Your task to perform on an android device: create a new album in the google photos Image 0: 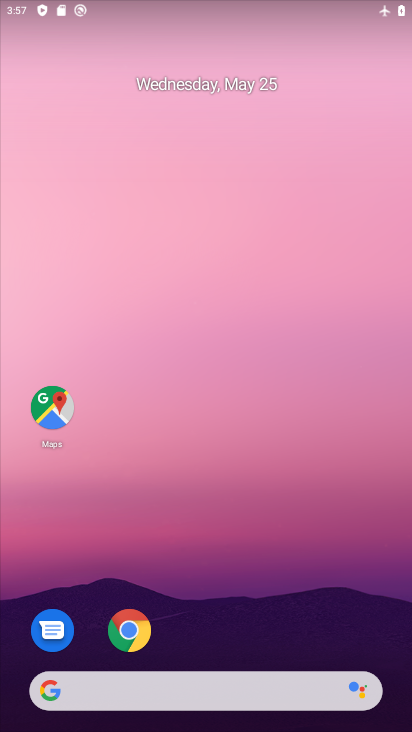
Step 0: drag from (251, 585) to (289, 119)
Your task to perform on an android device: create a new album in the google photos Image 1: 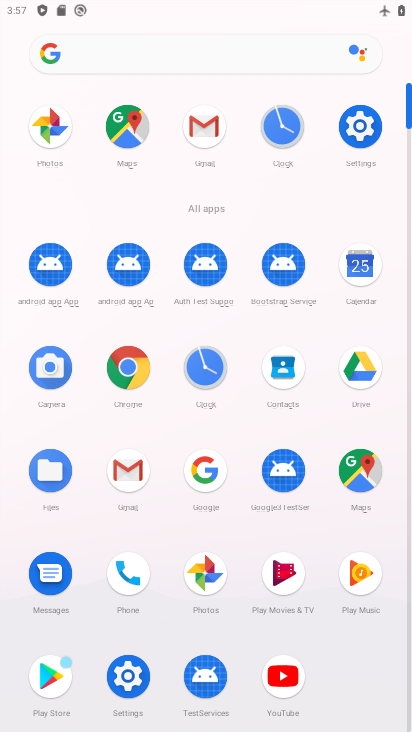
Step 1: click (200, 573)
Your task to perform on an android device: create a new album in the google photos Image 2: 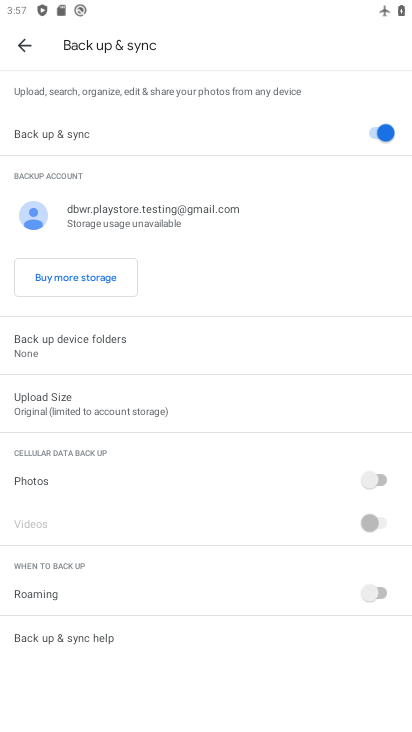
Step 2: click (23, 51)
Your task to perform on an android device: create a new album in the google photos Image 3: 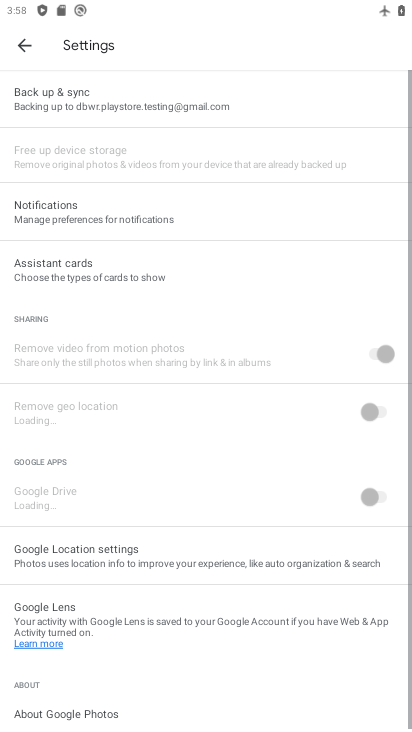
Step 3: click (25, 48)
Your task to perform on an android device: create a new album in the google photos Image 4: 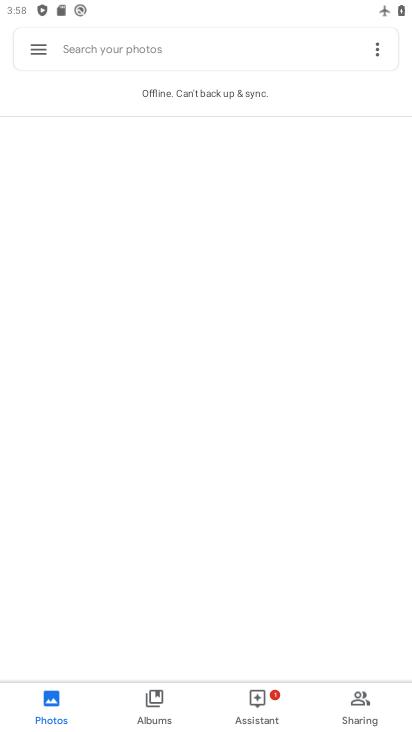
Step 4: click (377, 45)
Your task to perform on an android device: create a new album in the google photos Image 5: 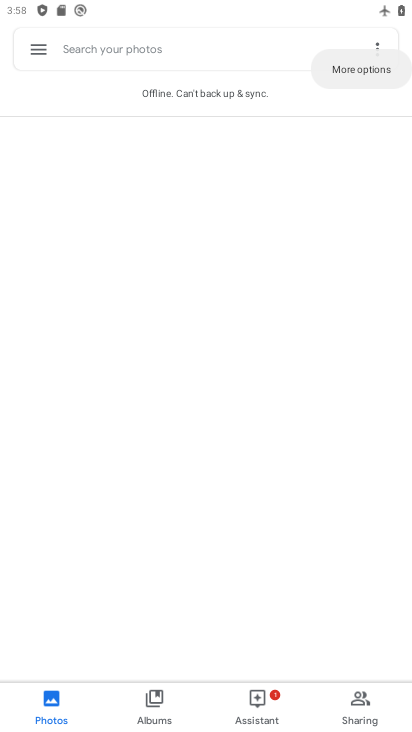
Step 5: click (377, 45)
Your task to perform on an android device: create a new album in the google photos Image 6: 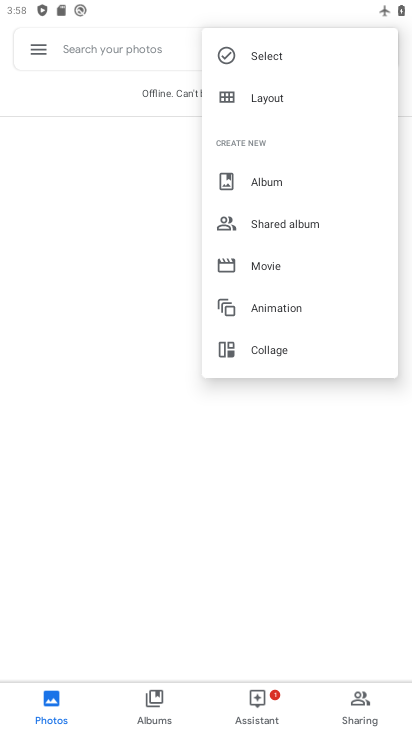
Step 6: click (263, 176)
Your task to perform on an android device: create a new album in the google photos Image 7: 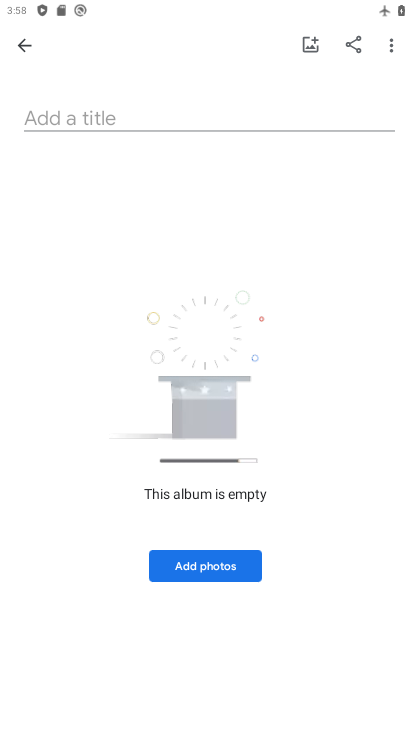
Step 7: click (83, 110)
Your task to perform on an android device: create a new album in the google photos Image 8: 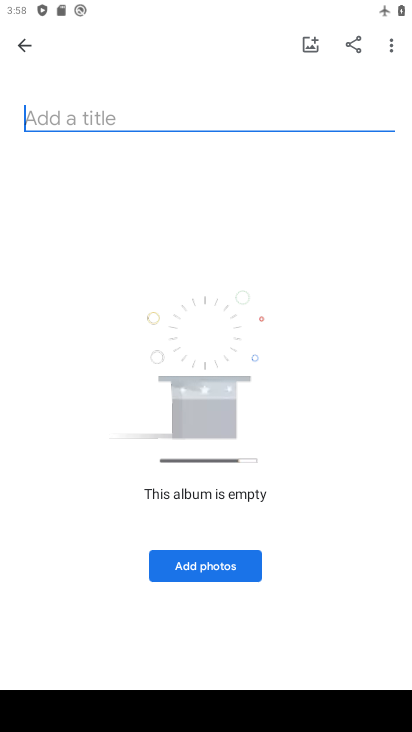
Step 8: type "vfbdb"
Your task to perform on an android device: create a new album in the google photos Image 9: 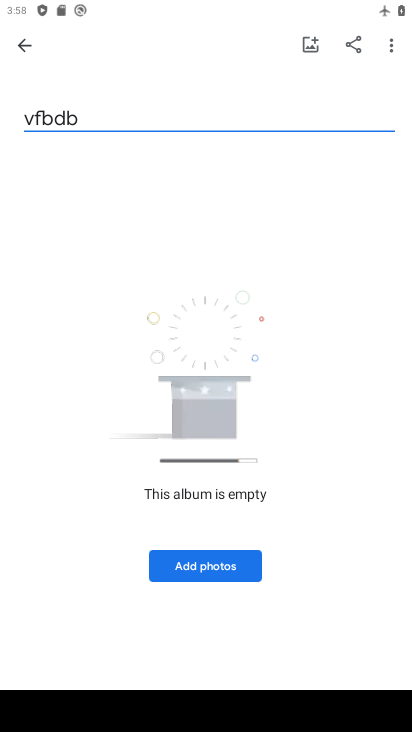
Step 9: click (192, 570)
Your task to perform on an android device: create a new album in the google photos Image 10: 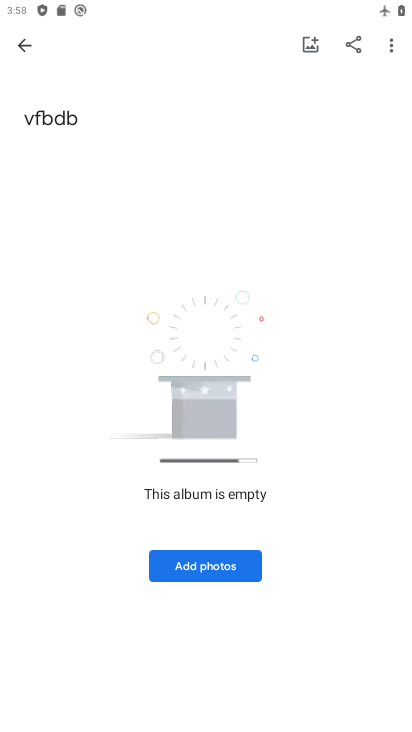
Step 10: click (204, 559)
Your task to perform on an android device: create a new album in the google photos Image 11: 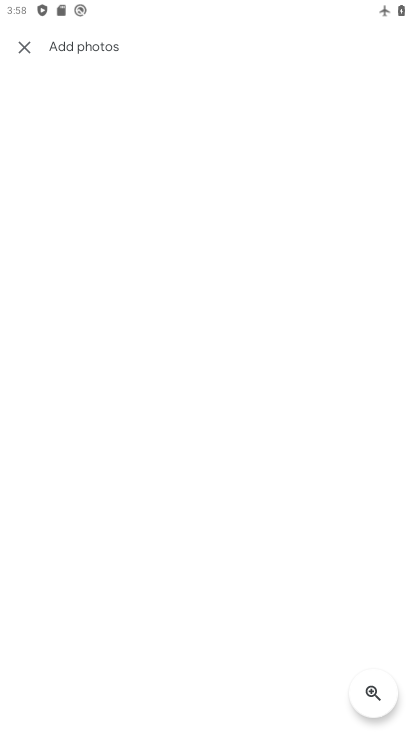
Step 11: task complete